Your task to perform on an android device: turn off location history Image 0: 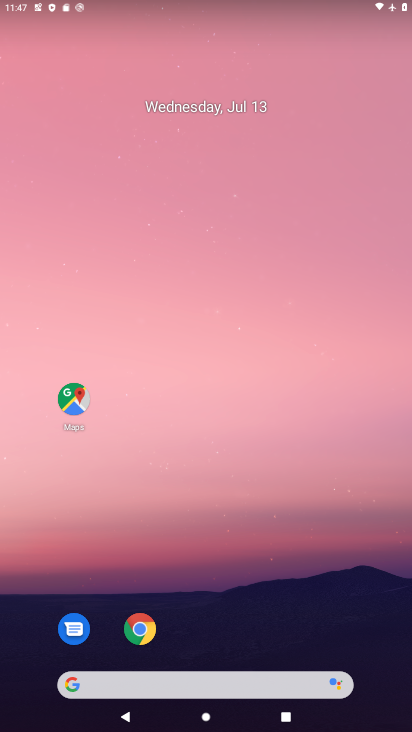
Step 0: drag from (240, 724) to (173, 108)
Your task to perform on an android device: turn off location history Image 1: 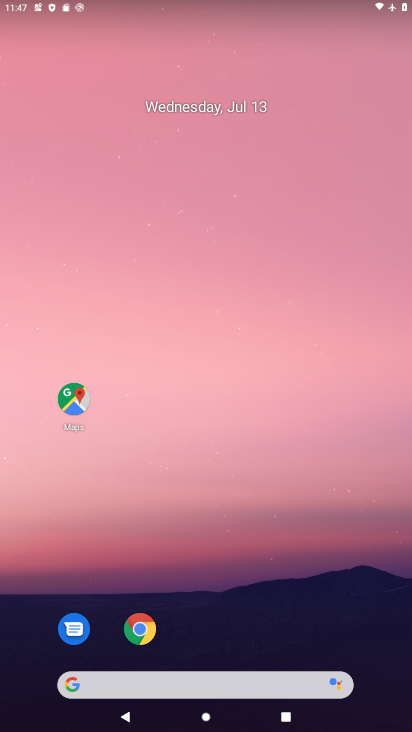
Step 1: drag from (240, 674) to (131, 61)
Your task to perform on an android device: turn off location history Image 2: 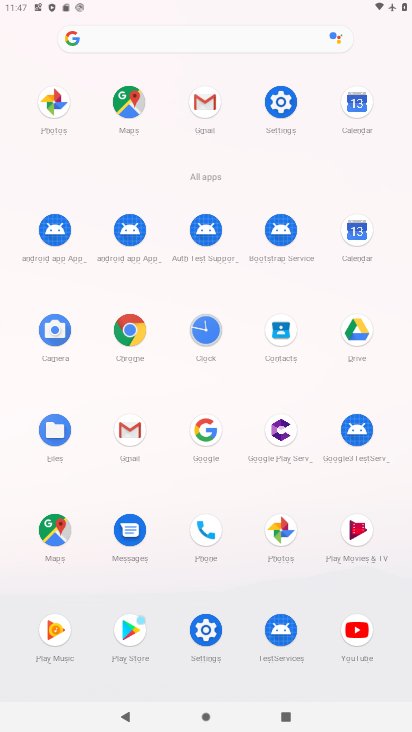
Step 2: click (280, 104)
Your task to perform on an android device: turn off location history Image 3: 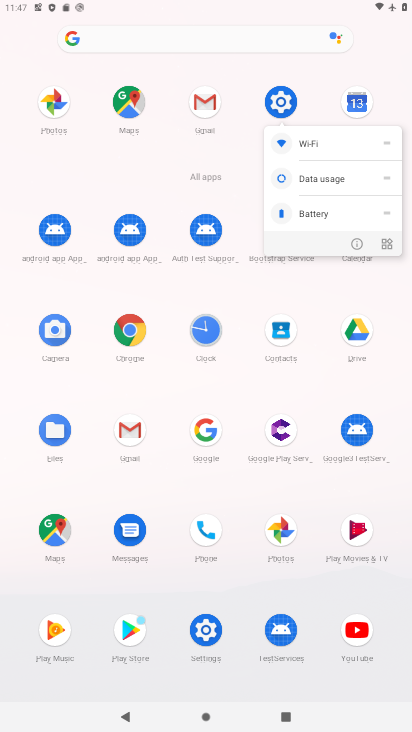
Step 3: click (279, 104)
Your task to perform on an android device: turn off location history Image 4: 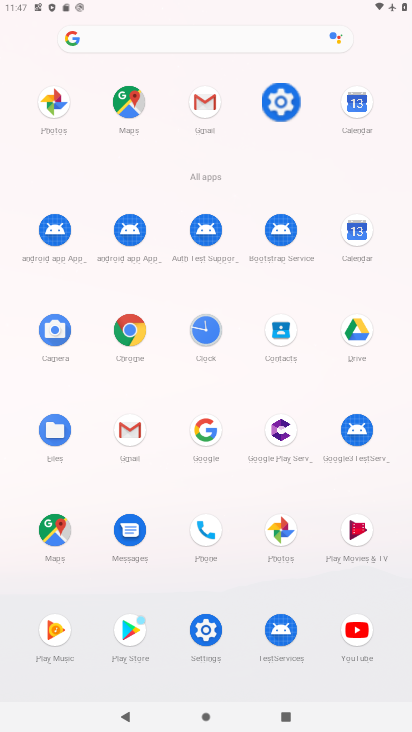
Step 4: click (279, 104)
Your task to perform on an android device: turn off location history Image 5: 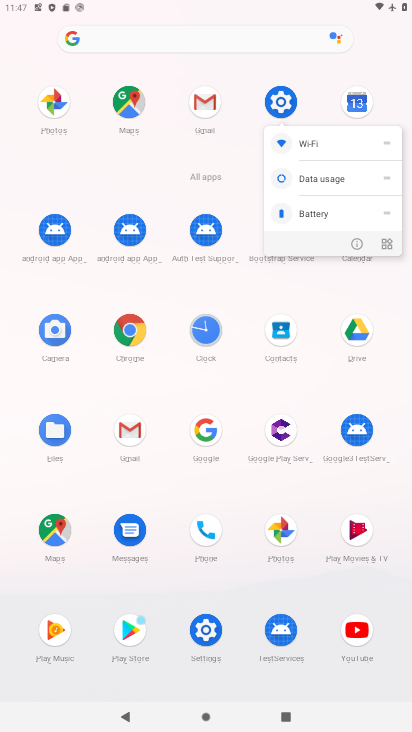
Step 5: click (279, 104)
Your task to perform on an android device: turn off location history Image 6: 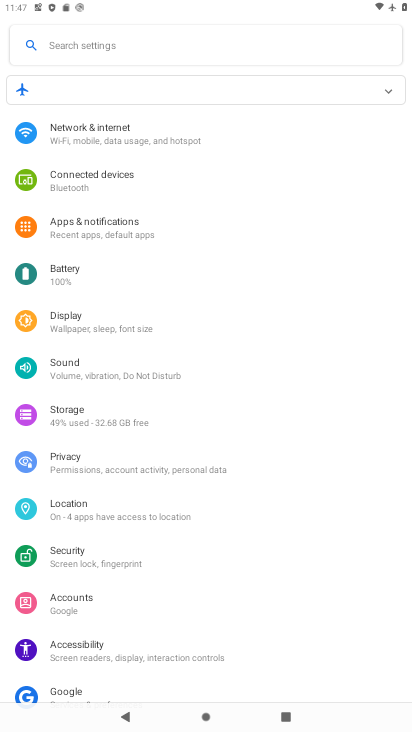
Step 6: click (279, 104)
Your task to perform on an android device: turn off location history Image 7: 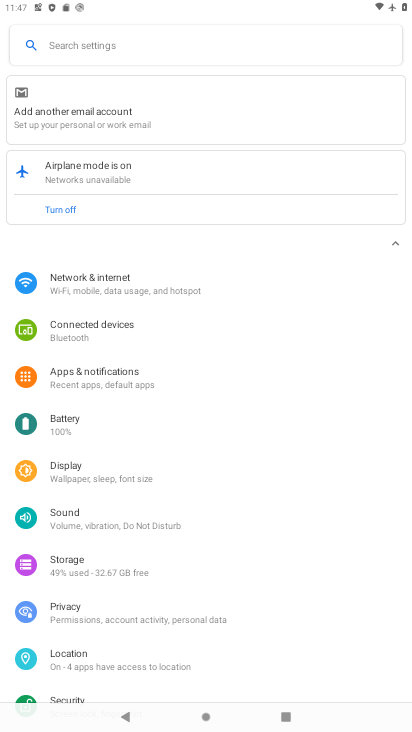
Step 7: click (63, 641)
Your task to perform on an android device: turn off location history Image 8: 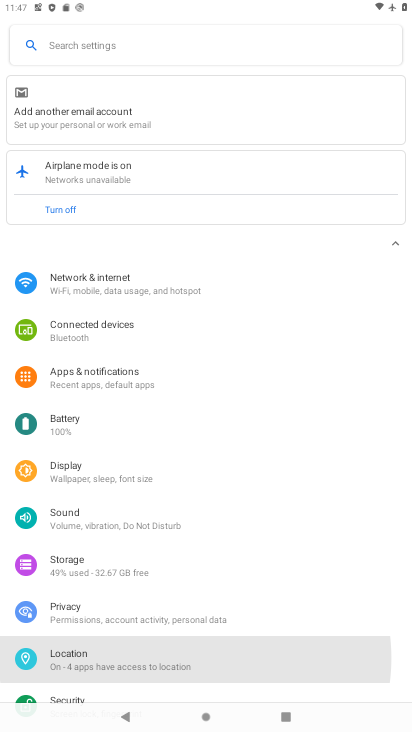
Step 8: click (86, 648)
Your task to perform on an android device: turn off location history Image 9: 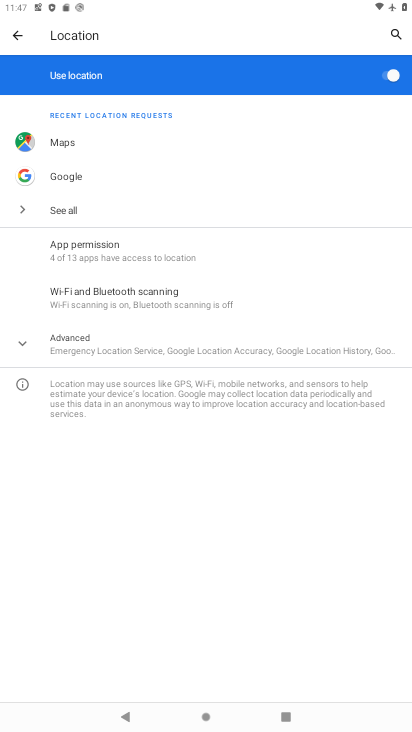
Step 9: click (86, 336)
Your task to perform on an android device: turn off location history Image 10: 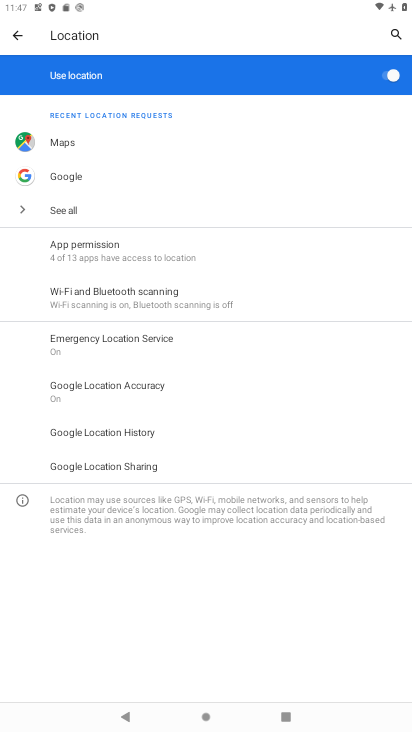
Step 10: click (103, 422)
Your task to perform on an android device: turn off location history Image 11: 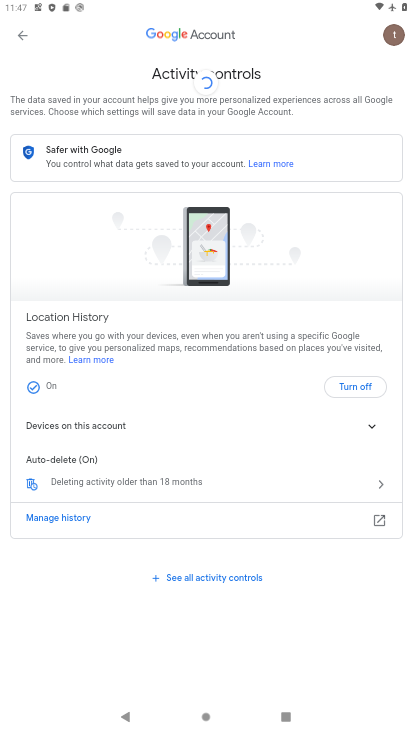
Step 11: click (363, 384)
Your task to perform on an android device: turn off location history Image 12: 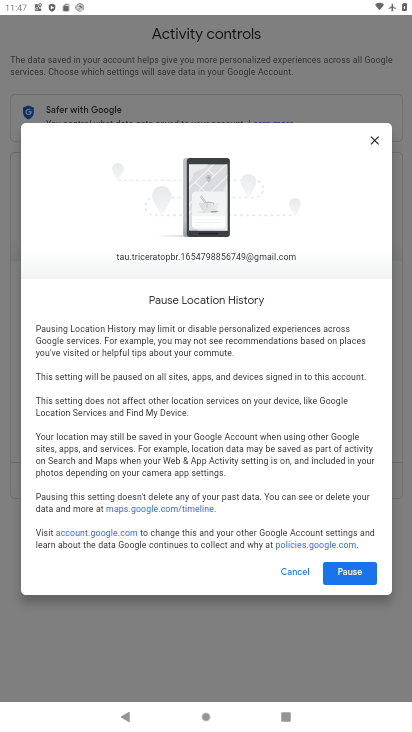
Step 12: click (356, 564)
Your task to perform on an android device: turn off location history Image 13: 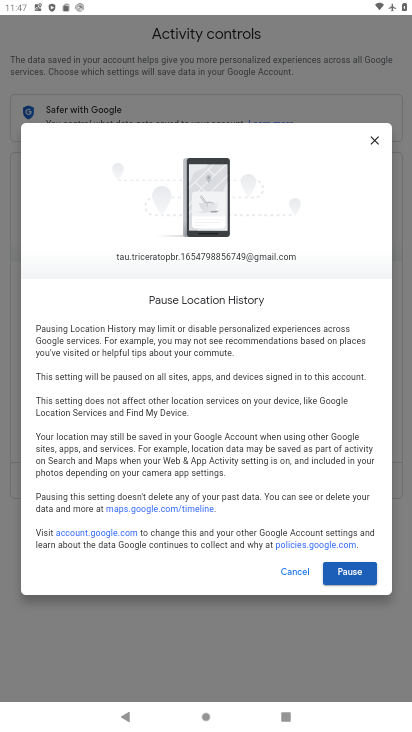
Step 13: click (349, 573)
Your task to perform on an android device: turn off location history Image 14: 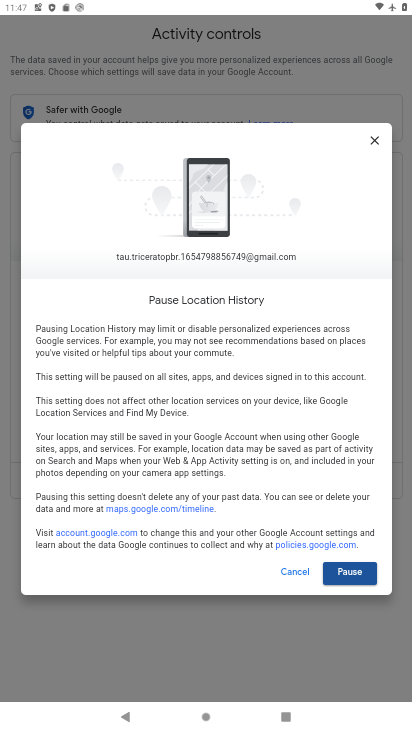
Step 14: click (350, 573)
Your task to perform on an android device: turn off location history Image 15: 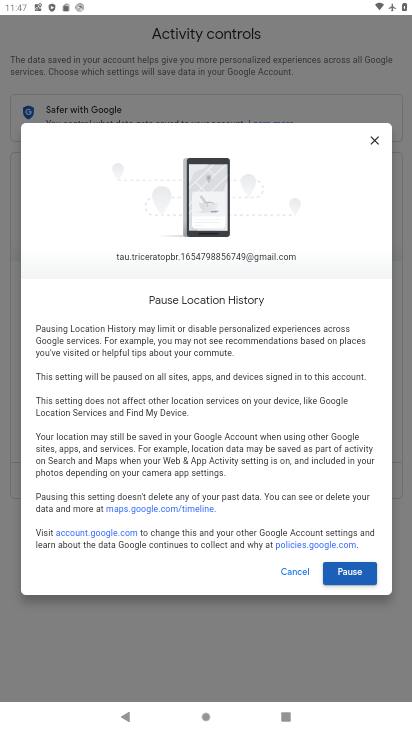
Step 15: click (351, 574)
Your task to perform on an android device: turn off location history Image 16: 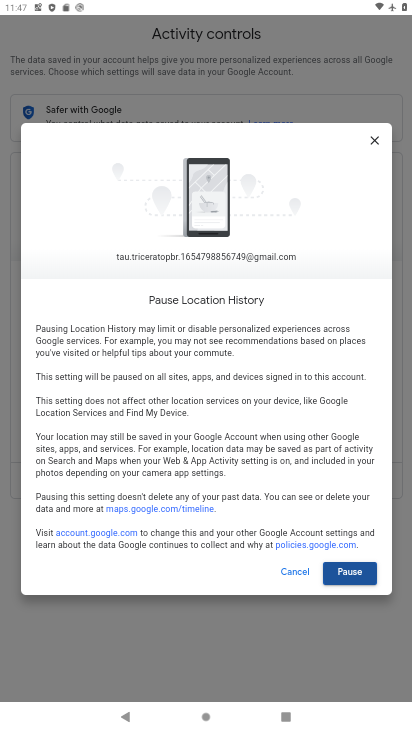
Step 16: click (351, 574)
Your task to perform on an android device: turn off location history Image 17: 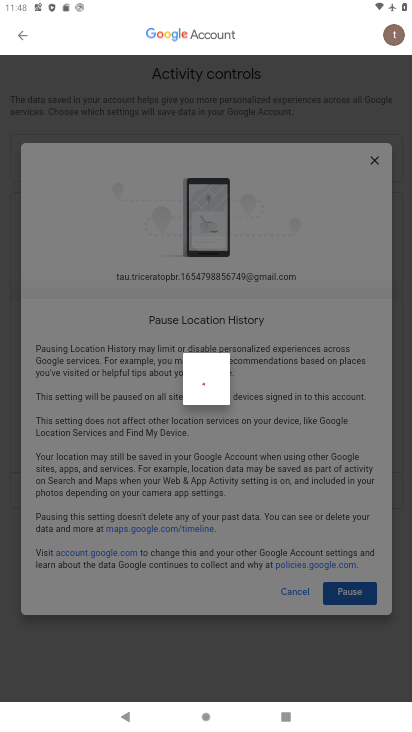
Step 17: click (366, 138)
Your task to perform on an android device: turn off location history Image 18: 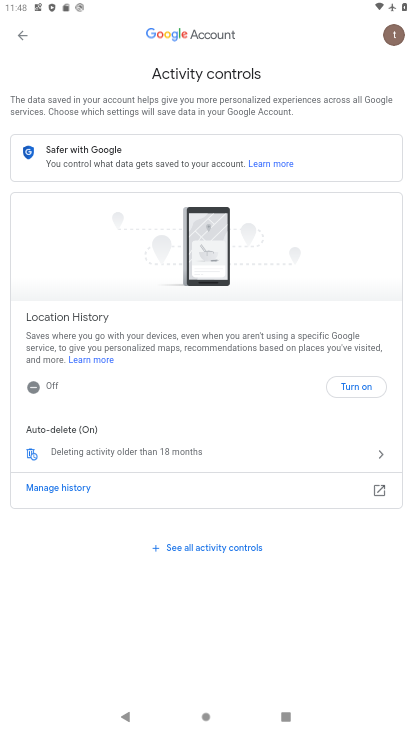
Step 18: task complete